Your task to perform on an android device: Open Google Chrome Image 0: 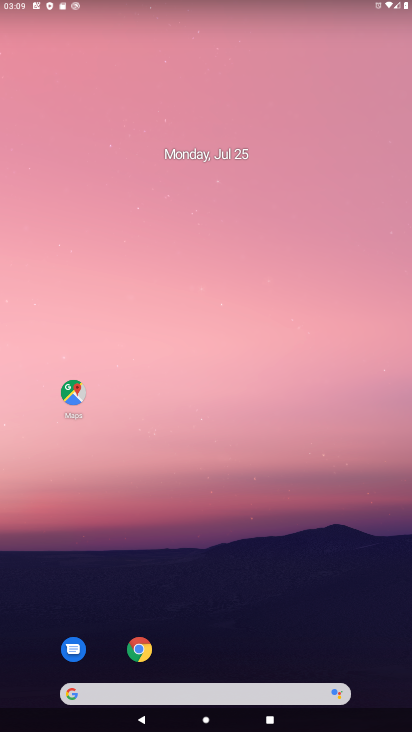
Step 0: click (138, 652)
Your task to perform on an android device: Open Google Chrome Image 1: 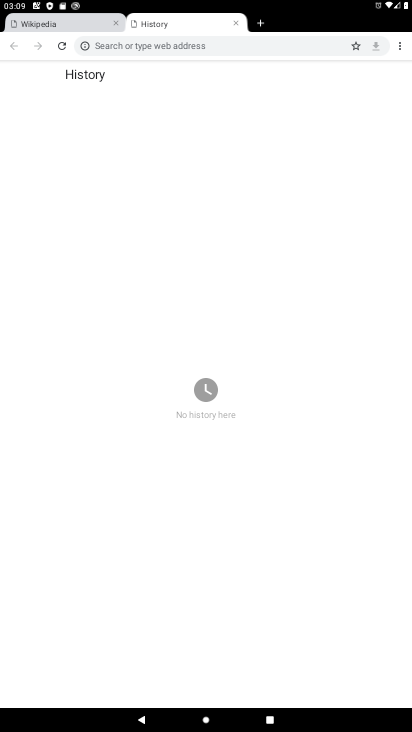
Step 1: task complete